Your task to perform on an android device: What's the weather? Image 0: 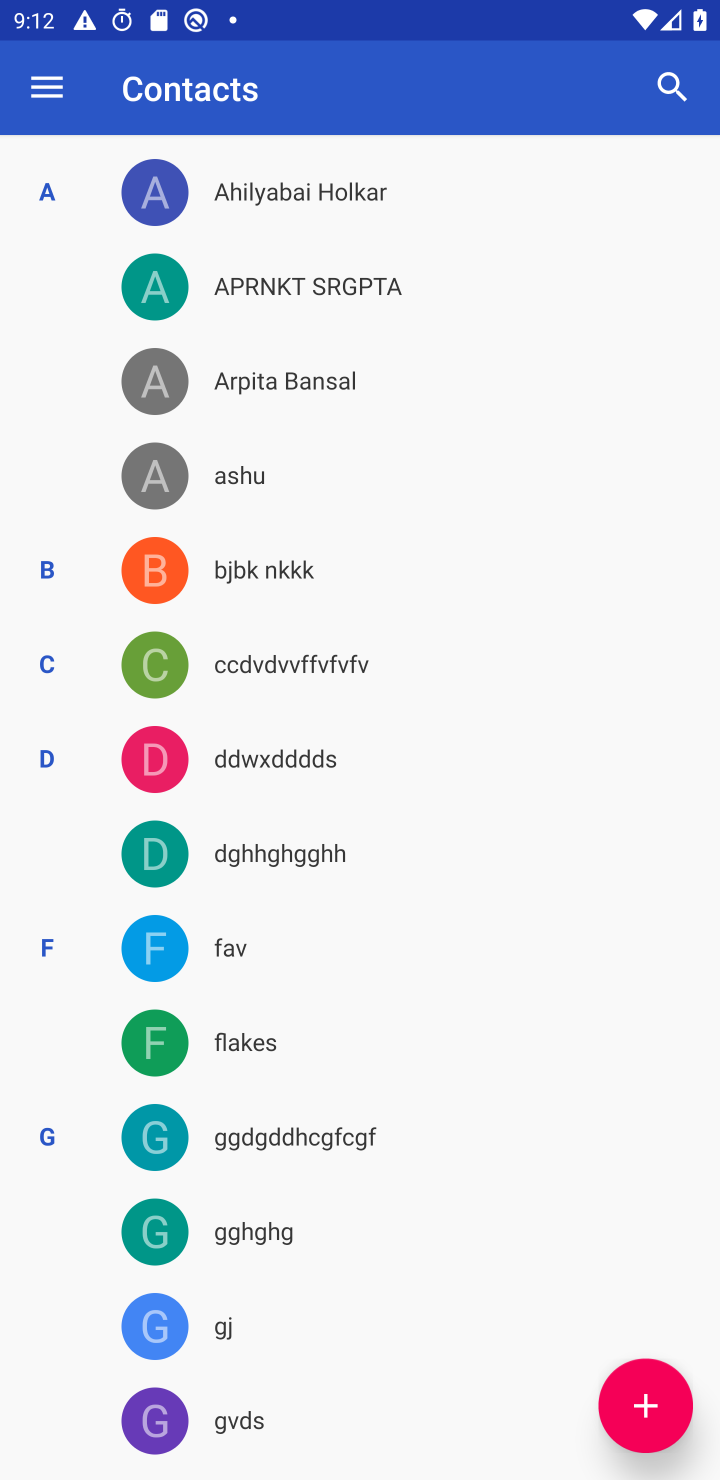
Step 0: press back button
Your task to perform on an android device: What's the weather? Image 1: 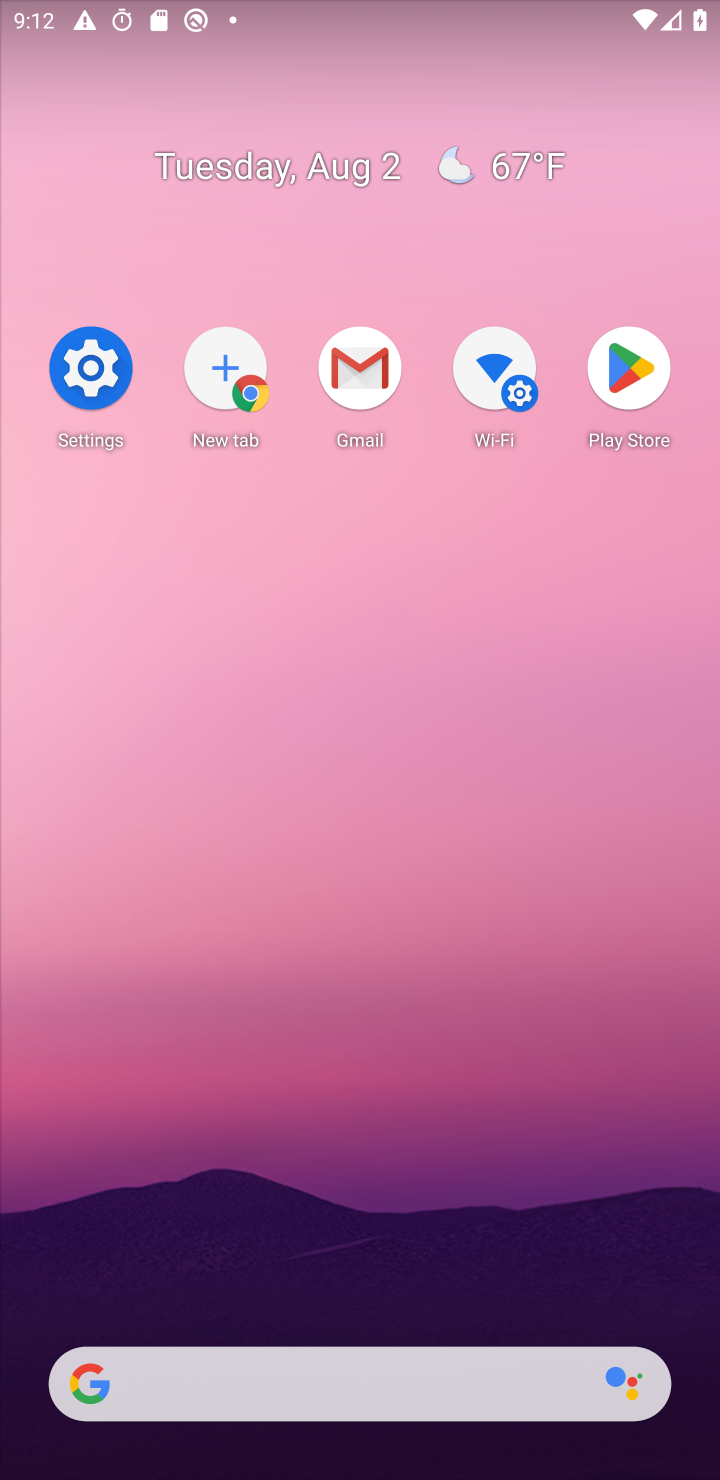
Step 1: drag from (240, 1403) to (250, 1256)
Your task to perform on an android device: What's the weather? Image 2: 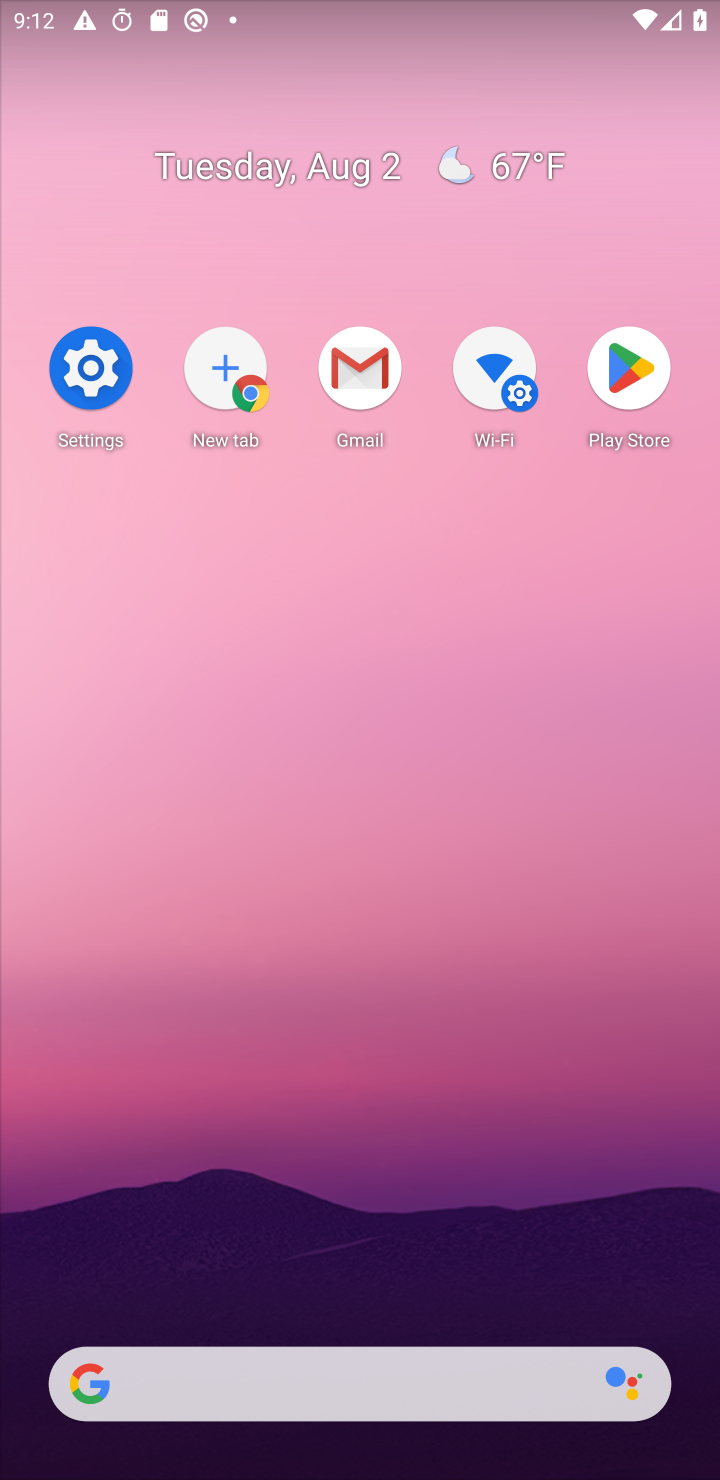
Step 2: click (305, 726)
Your task to perform on an android device: What's the weather? Image 3: 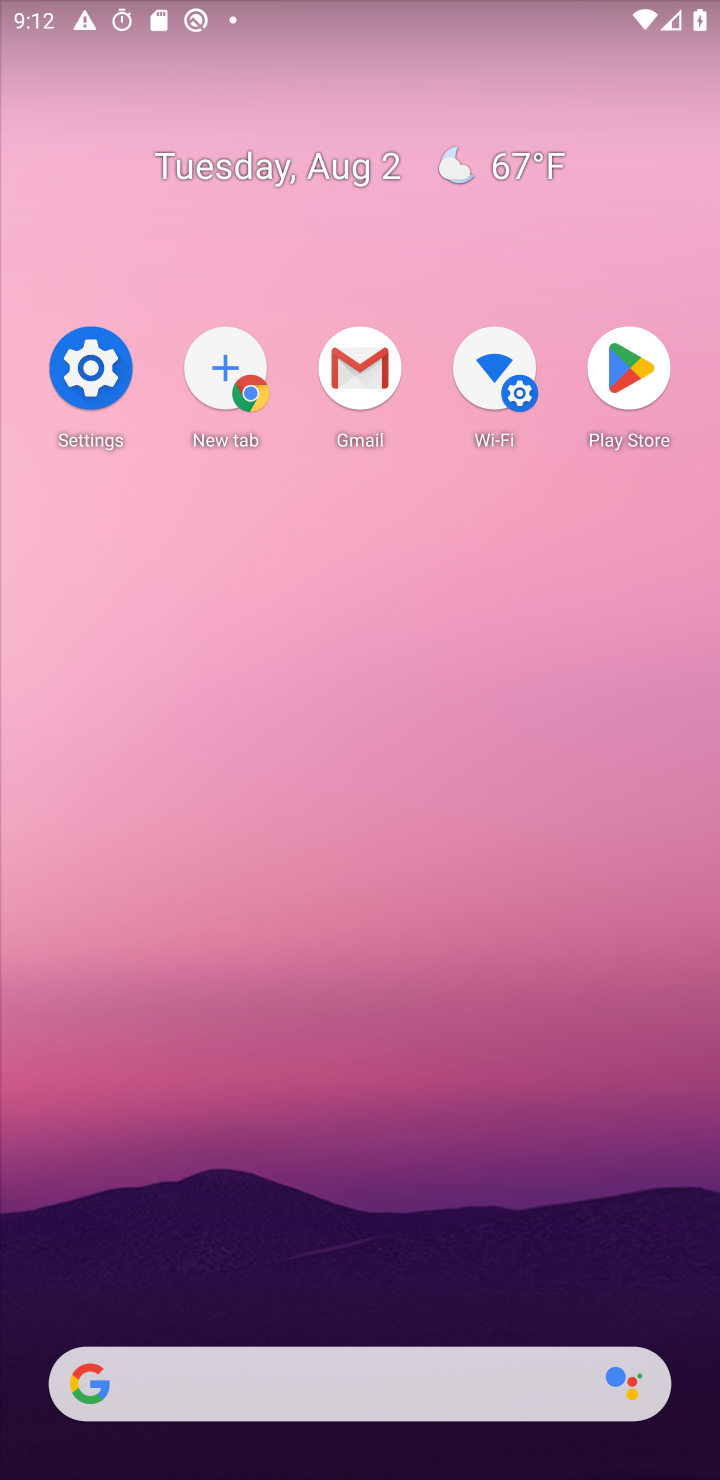
Step 3: drag from (379, 873) to (362, 579)
Your task to perform on an android device: What's the weather? Image 4: 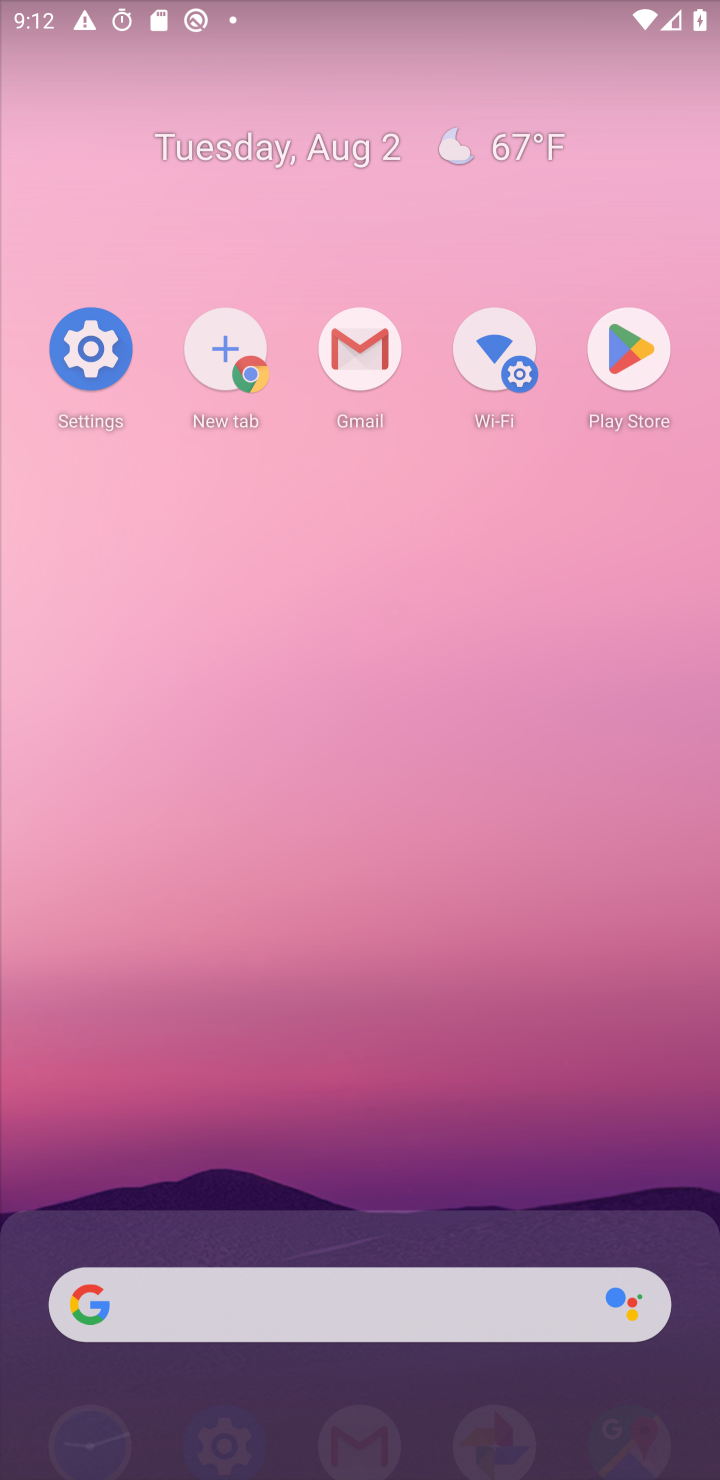
Step 4: click (385, 286)
Your task to perform on an android device: What's the weather? Image 5: 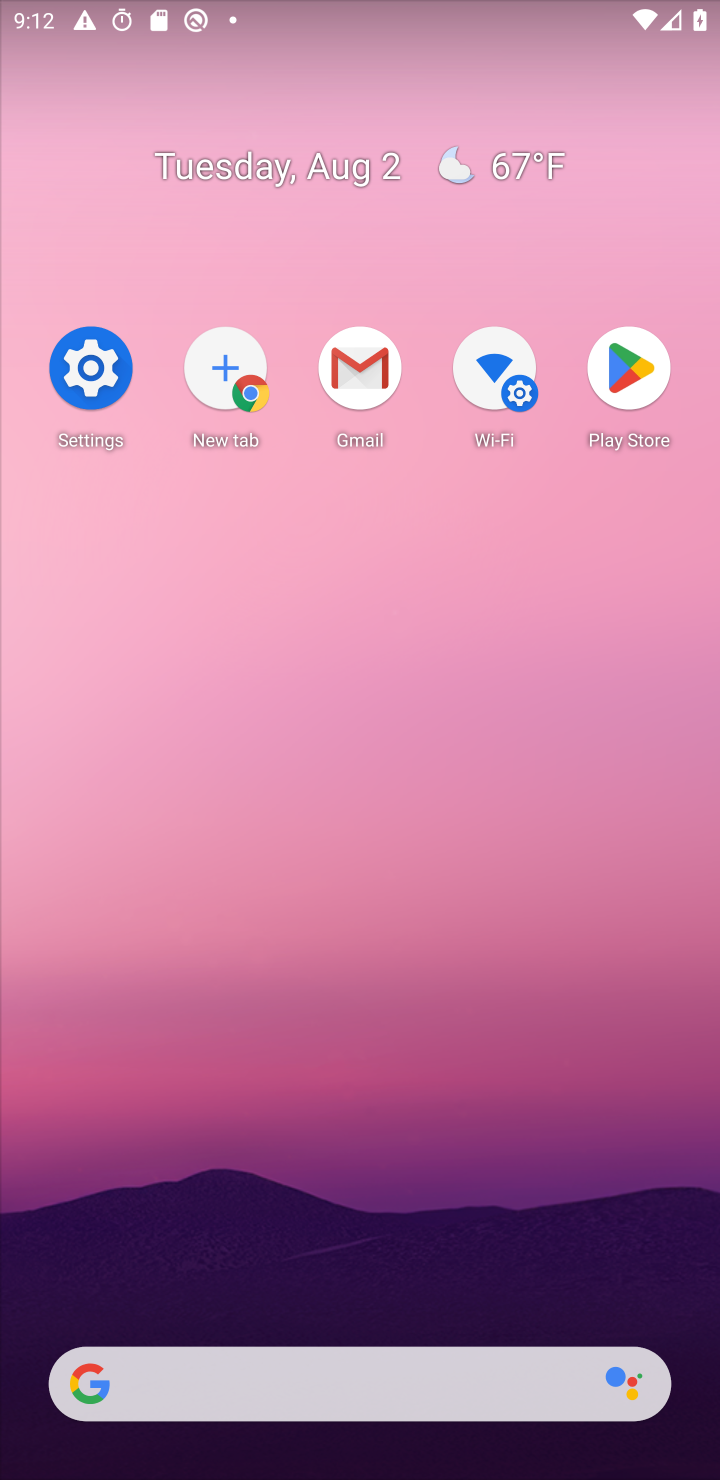
Step 5: drag from (370, 740) to (396, 156)
Your task to perform on an android device: What's the weather? Image 6: 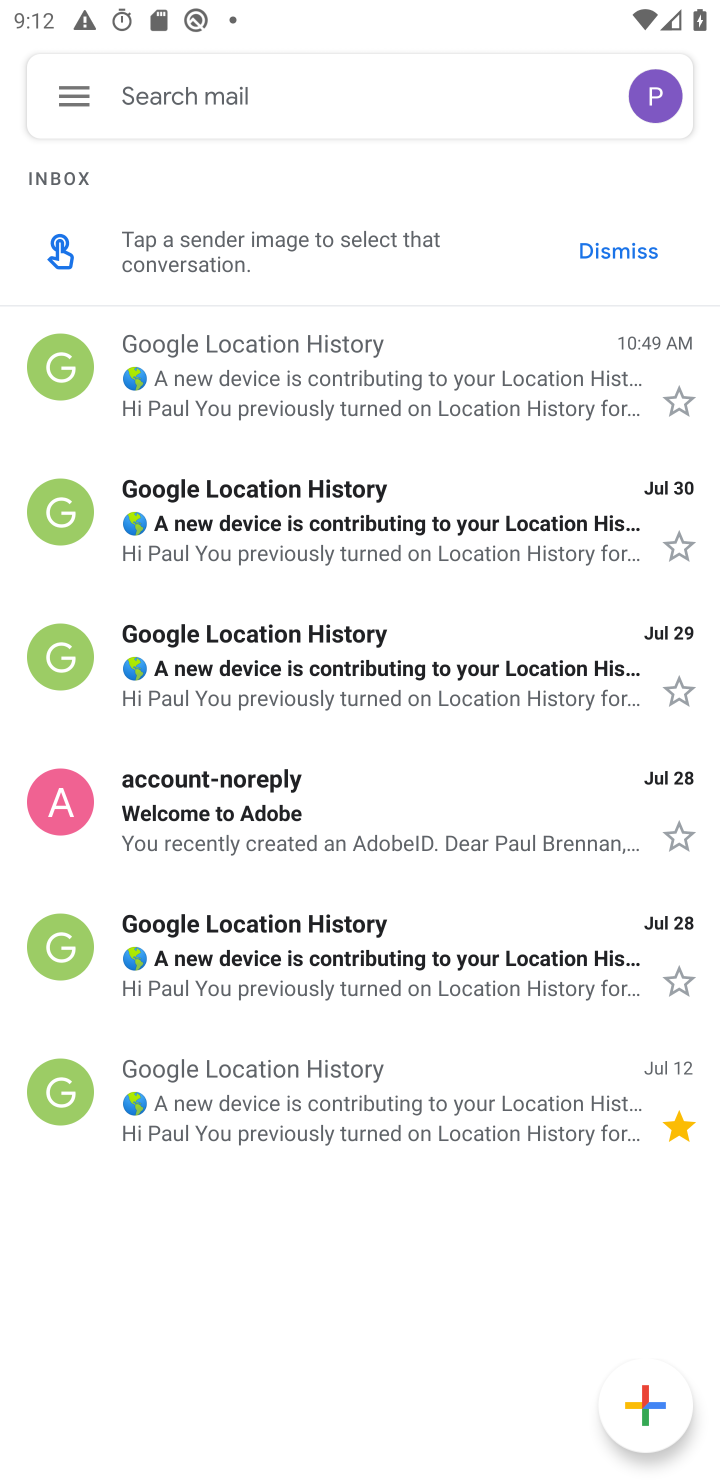
Step 6: press back button
Your task to perform on an android device: What's the weather? Image 7: 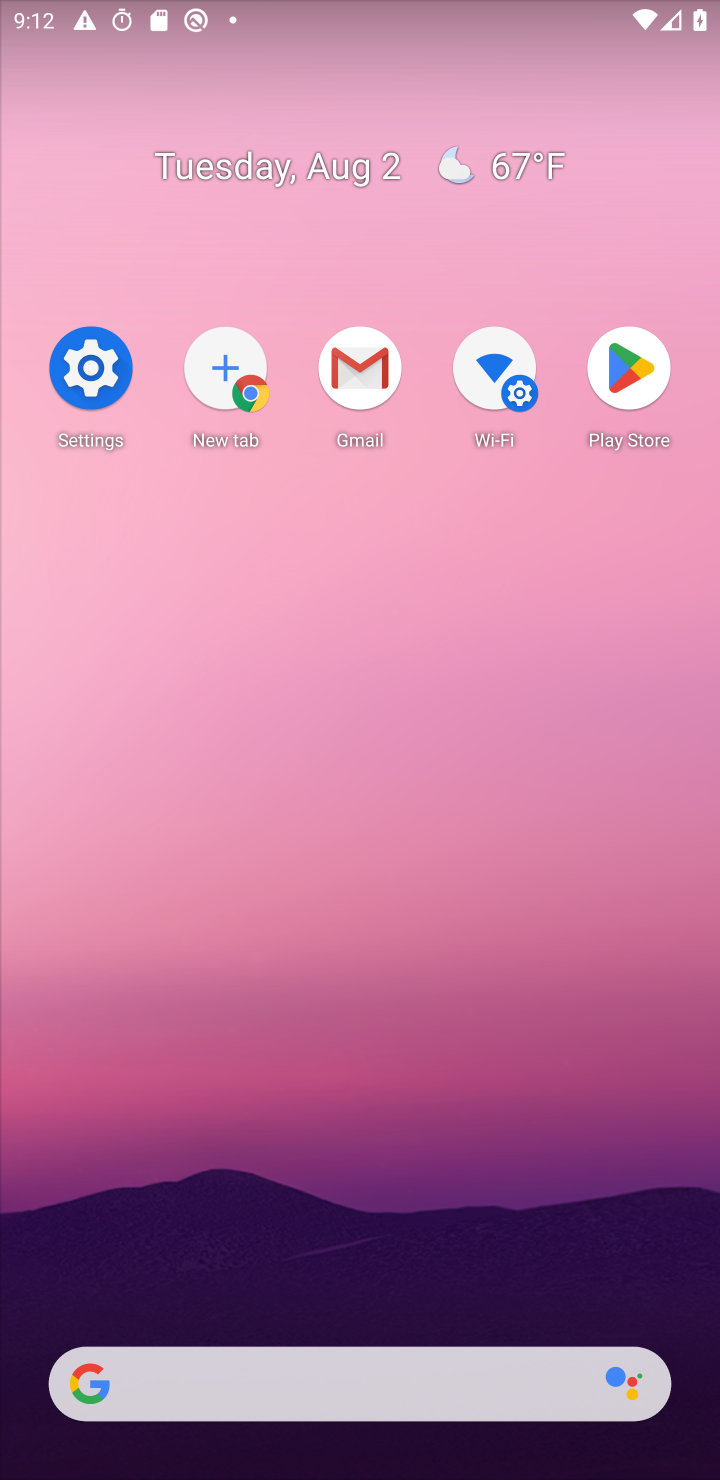
Step 7: click (463, 161)
Your task to perform on an android device: What's the weather? Image 8: 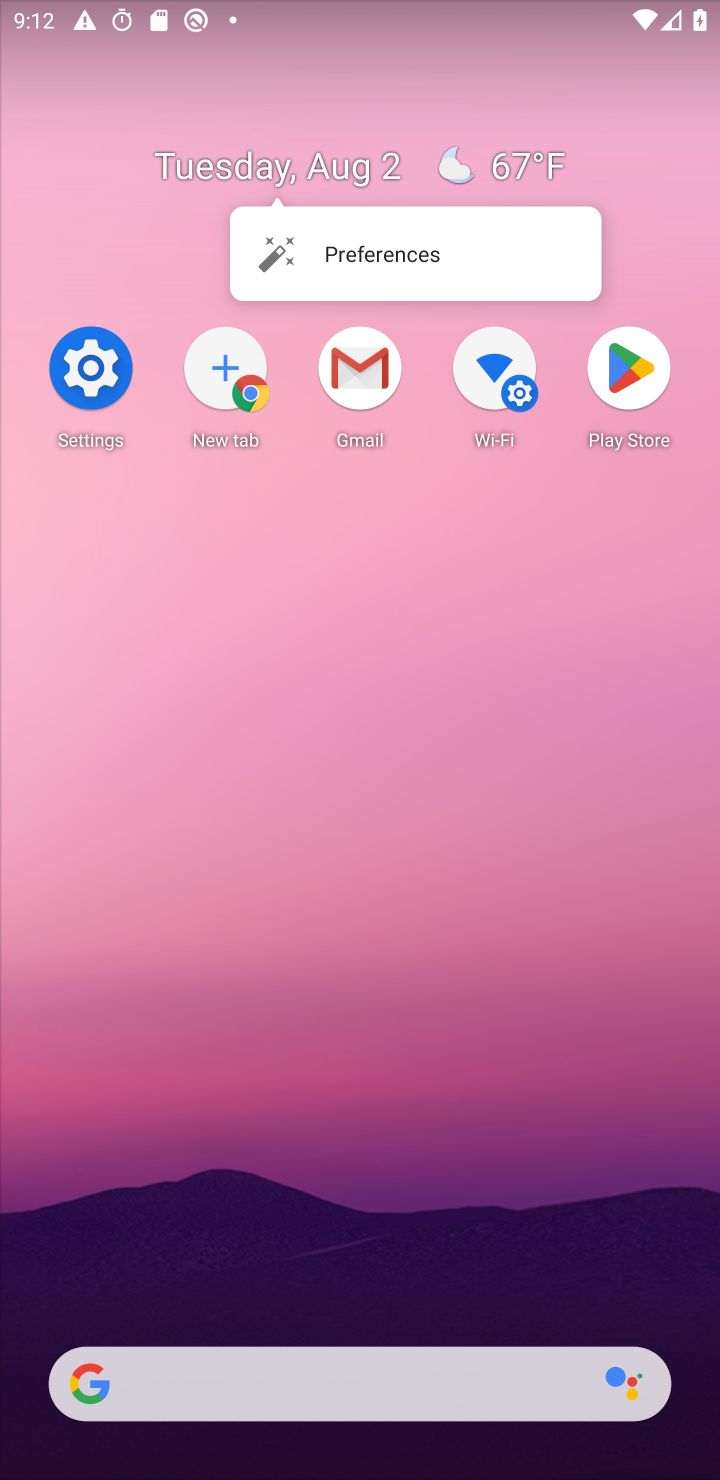
Step 8: click (466, 158)
Your task to perform on an android device: What's the weather? Image 9: 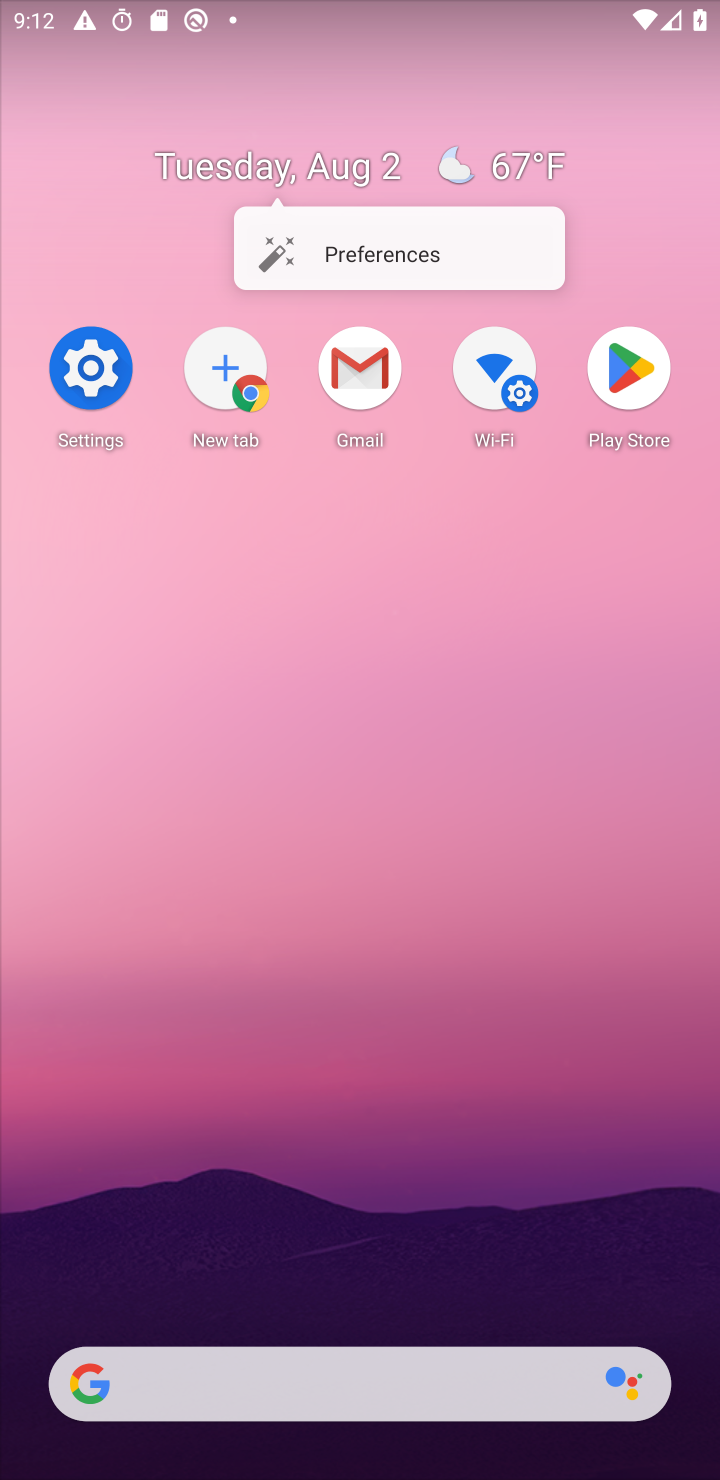
Step 9: click (472, 163)
Your task to perform on an android device: What's the weather? Image 10: 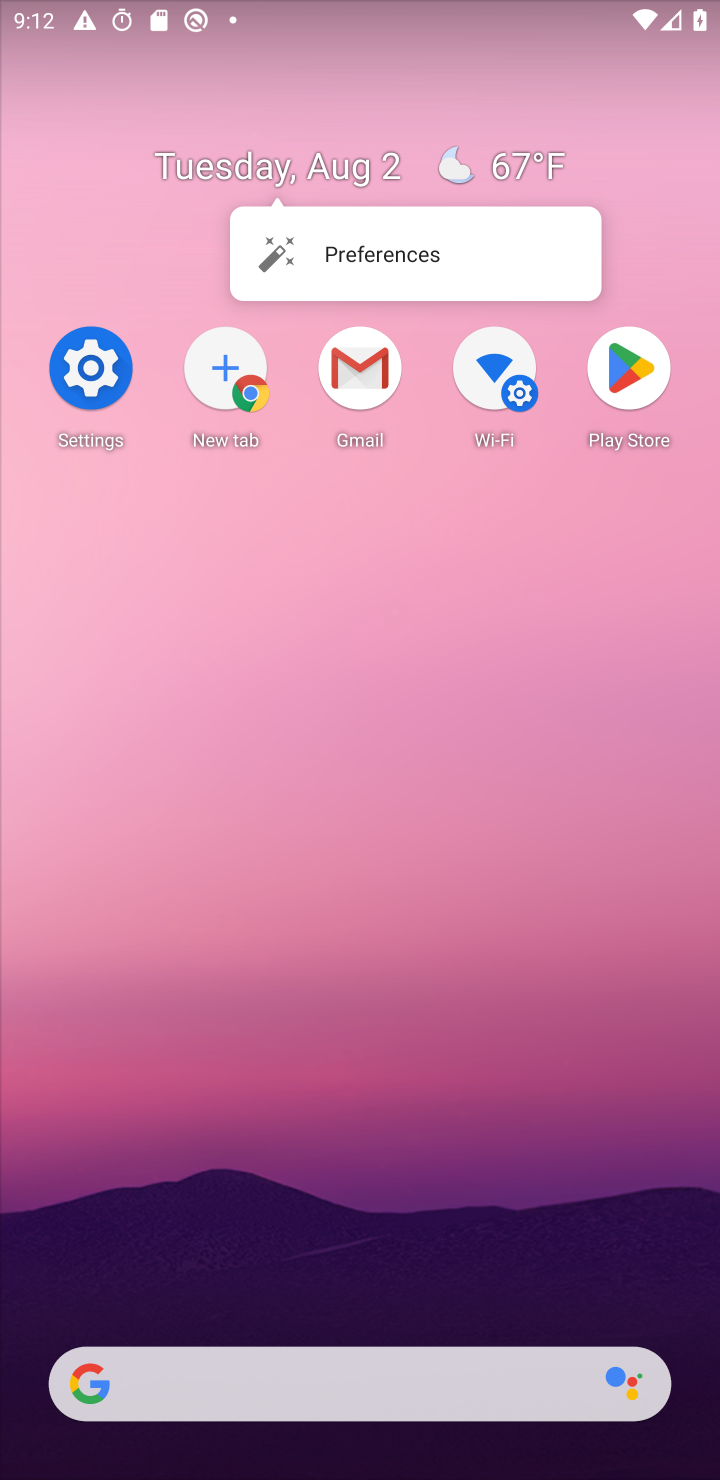
Step 10: click (460, 171)
Your task to perform on an android device: What's the weather? Image 11: 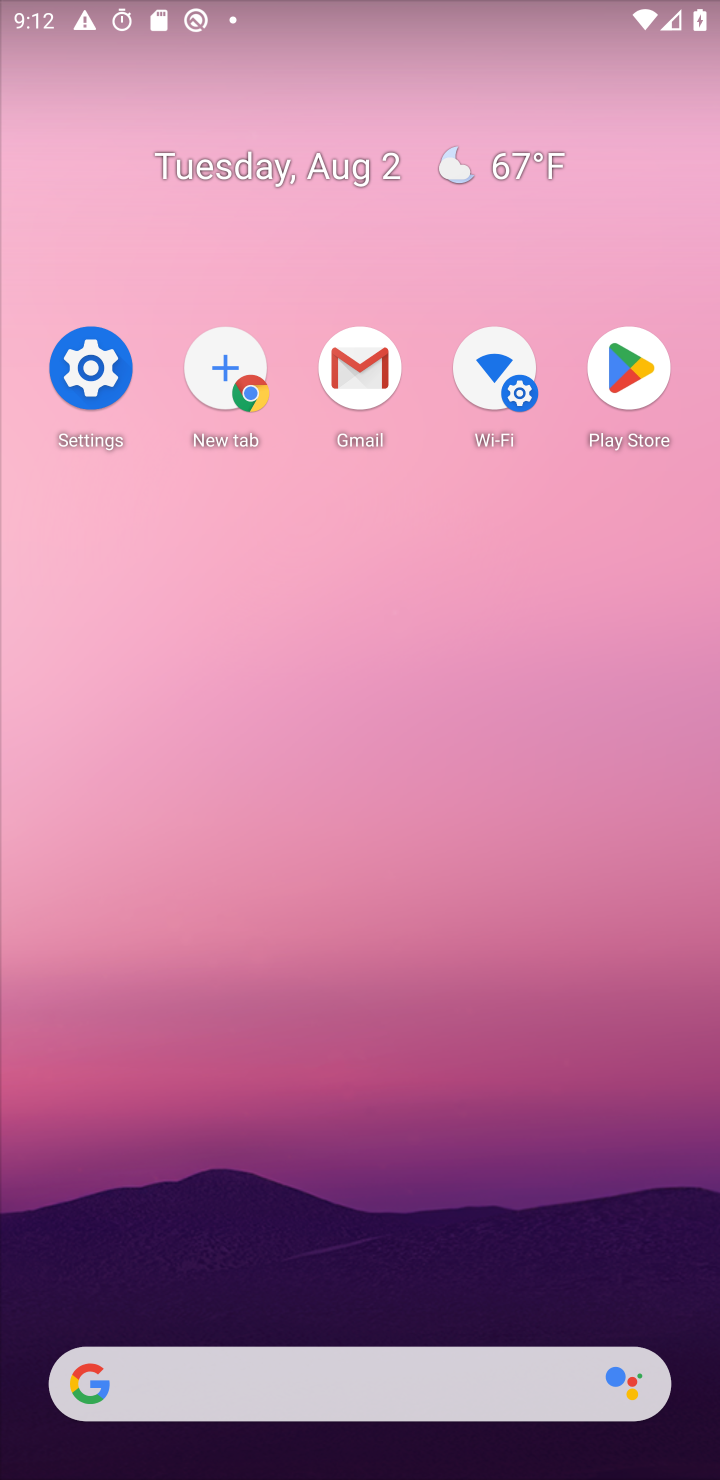
Step 11: click (469, 169)
Your task to perform on an android device: What's the weather? Image 12: 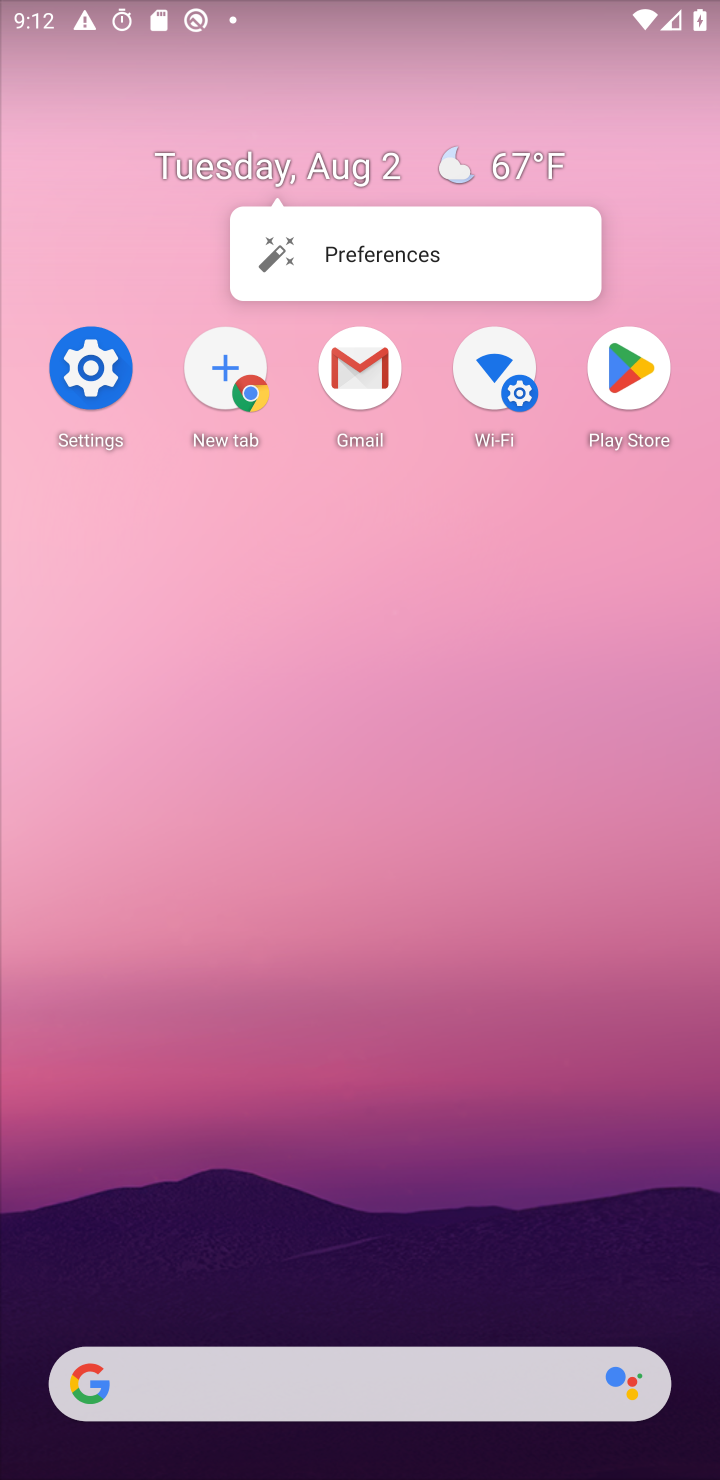
Step 12: click (511, 163)
Your task to perform on an android device: What's the weather? Image 13: 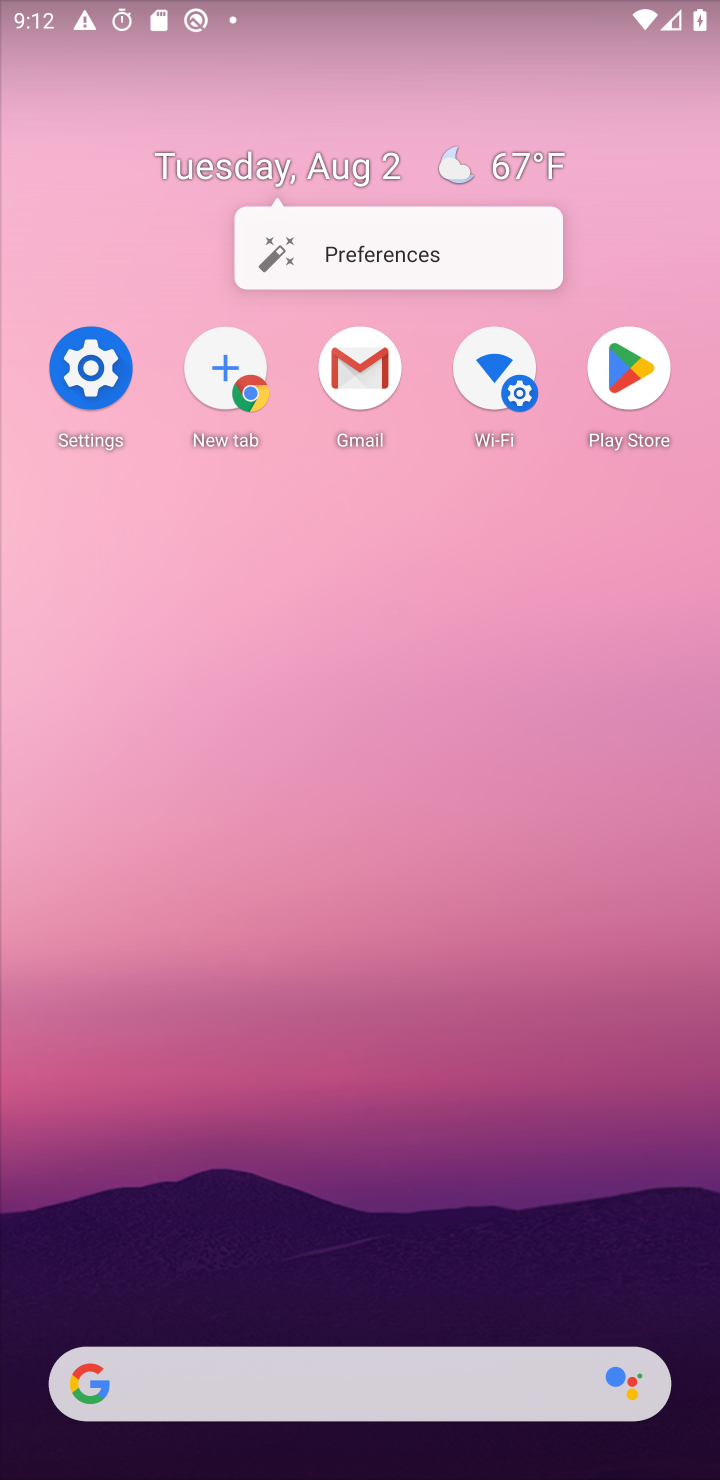
Step 13: click (542, 160)
Your task to perform on an android device: What's the weather? Image 14: 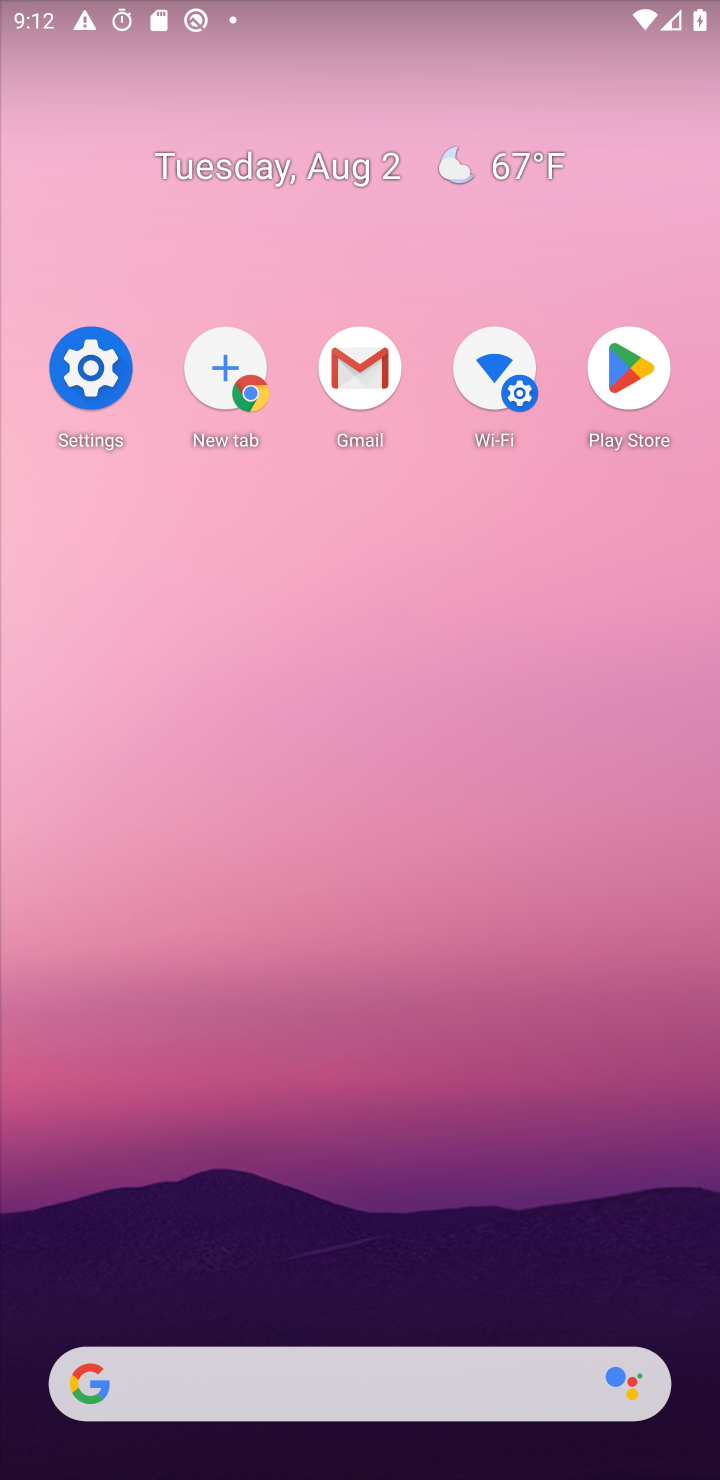
Step 14: click (456, 170)
Your task to perform on an android device: What's the weather? Image 15: 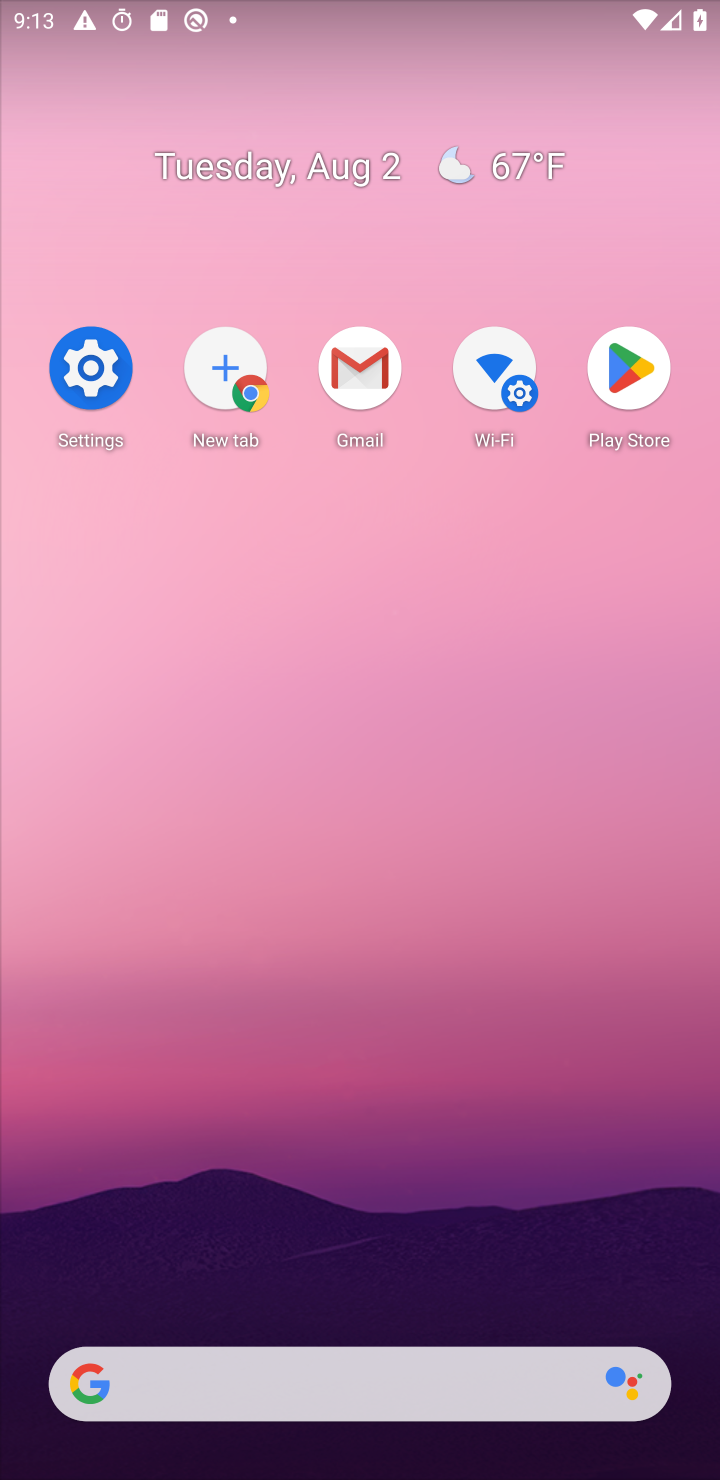
Step 15: click (428, 168)
Your task to perform on an android device: What's the weather? Image 16: 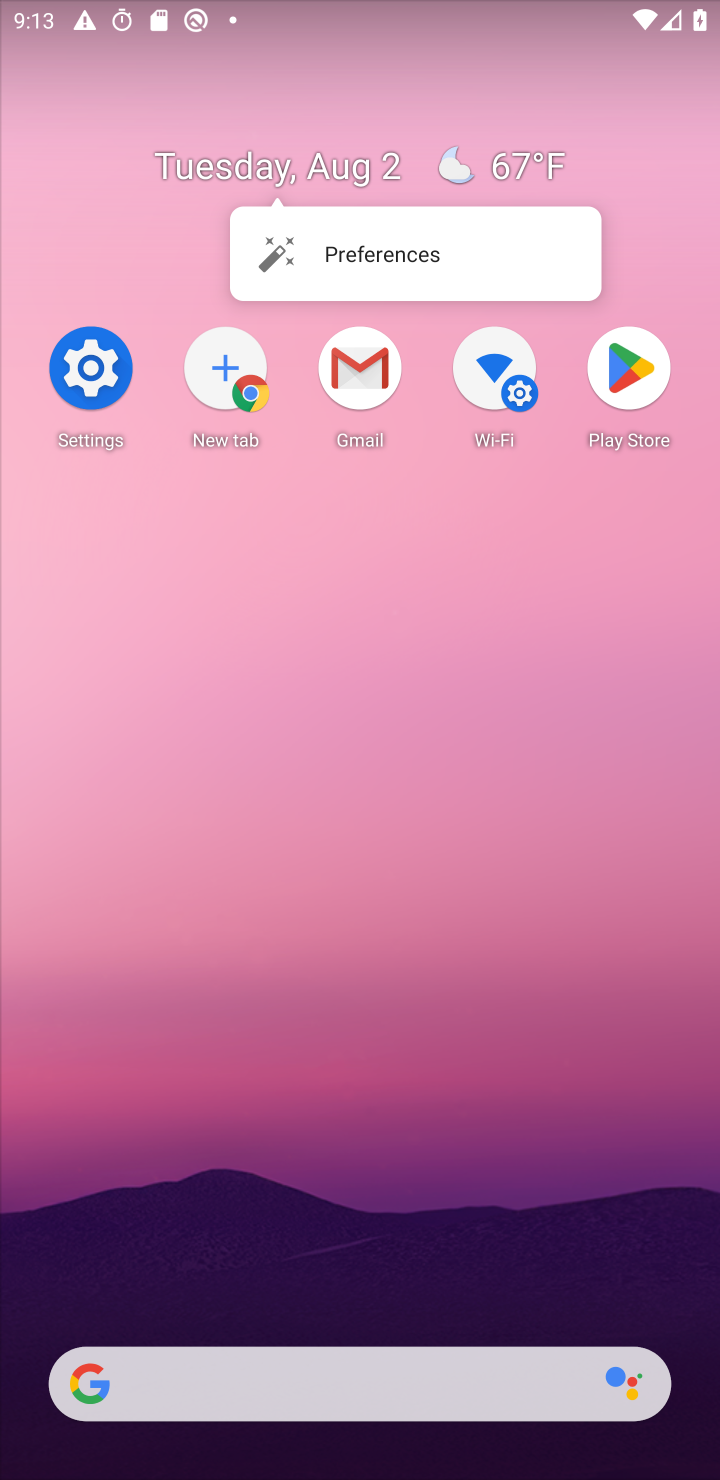
Step 16: click (423, 165)
Your task to perform on an android device: What's the weather? Image 17: 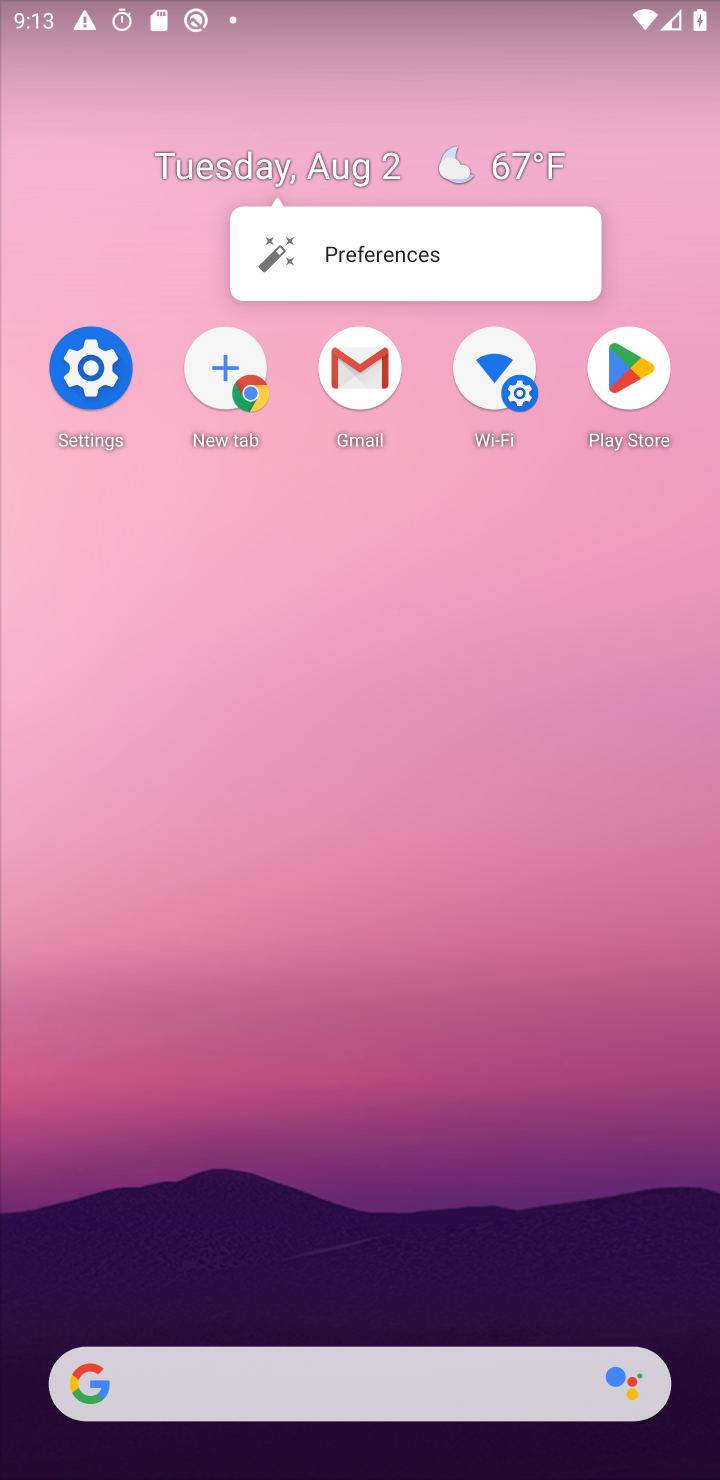
Step 17: click (448, 148)
Your task to perform on an android device: What's the weather? Image 18: 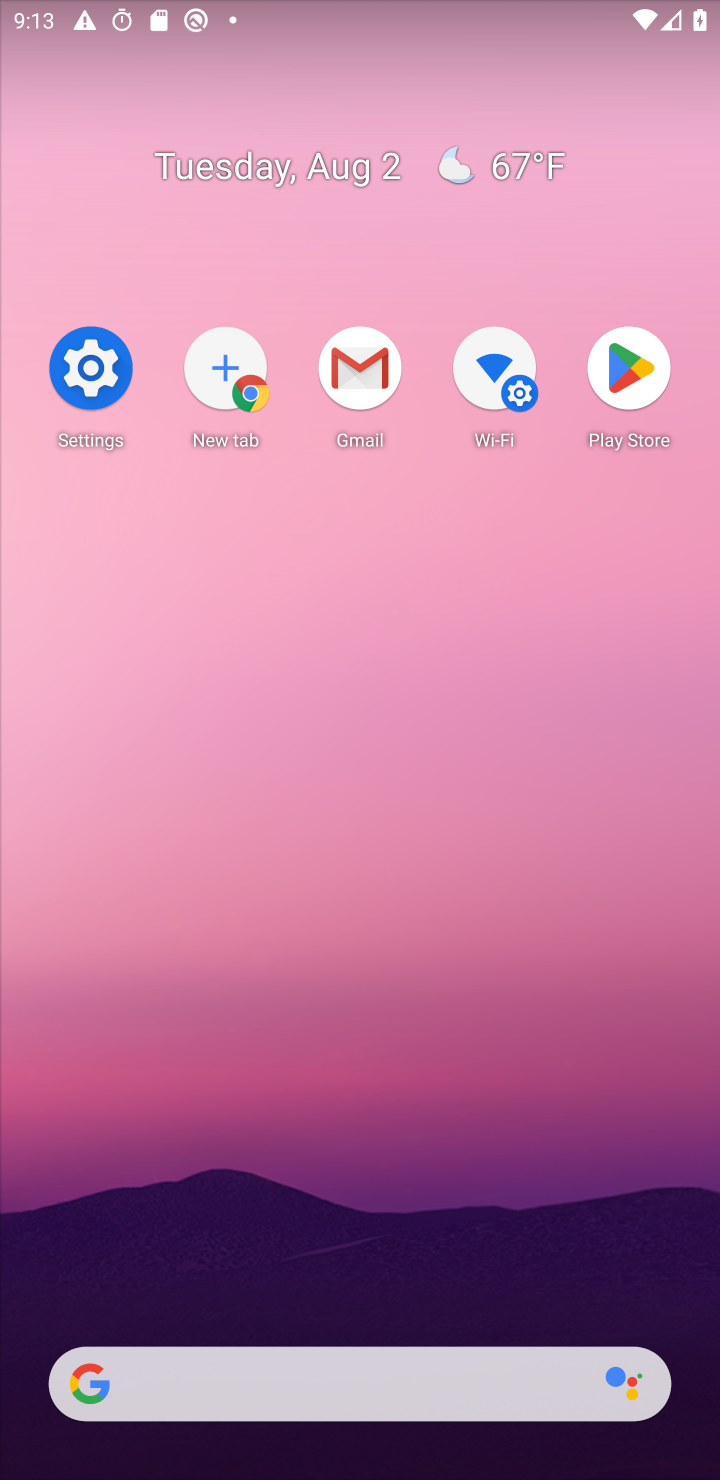
Step 18: click (460, 150)
Your task to perform on an android device: What's the weather? Image 19: 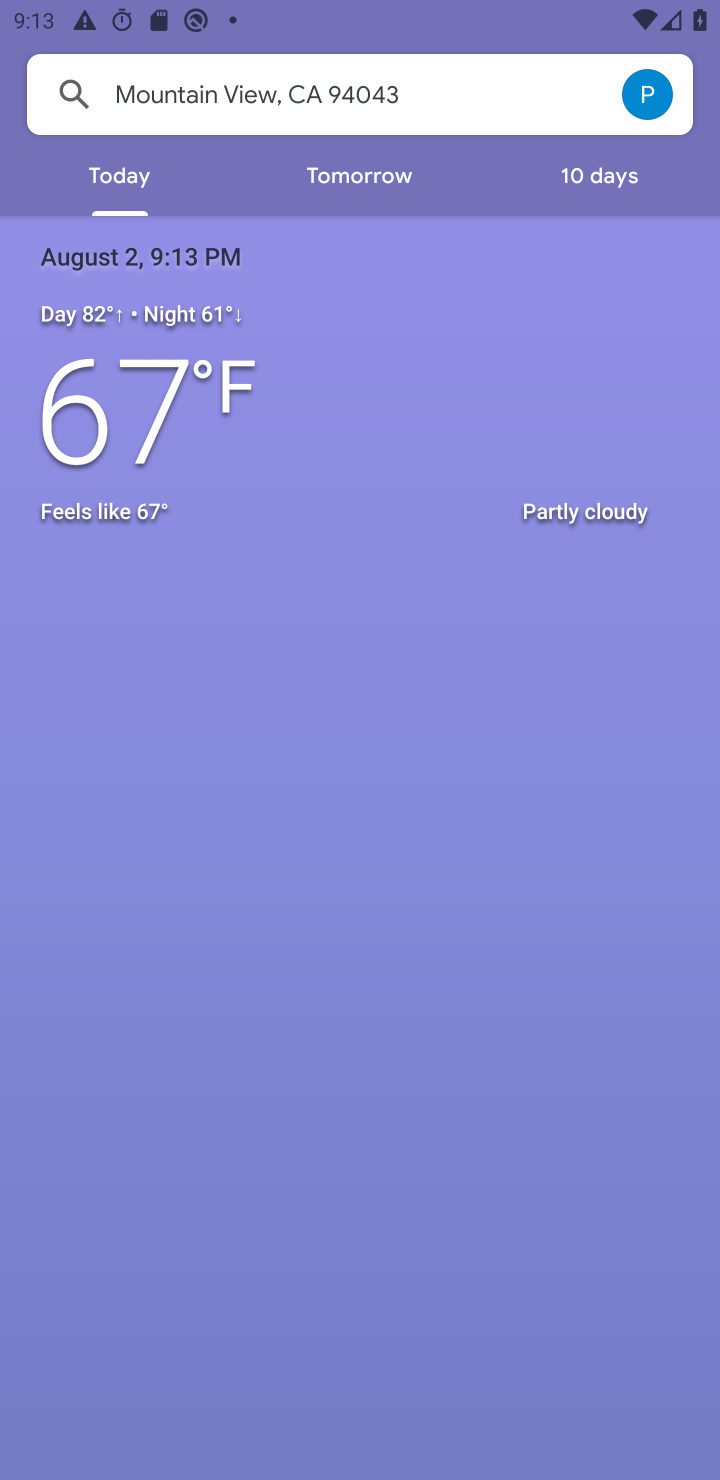
Step 19: click (397, 397)
Your task to perform on an android device: What's the weather? Image 20: 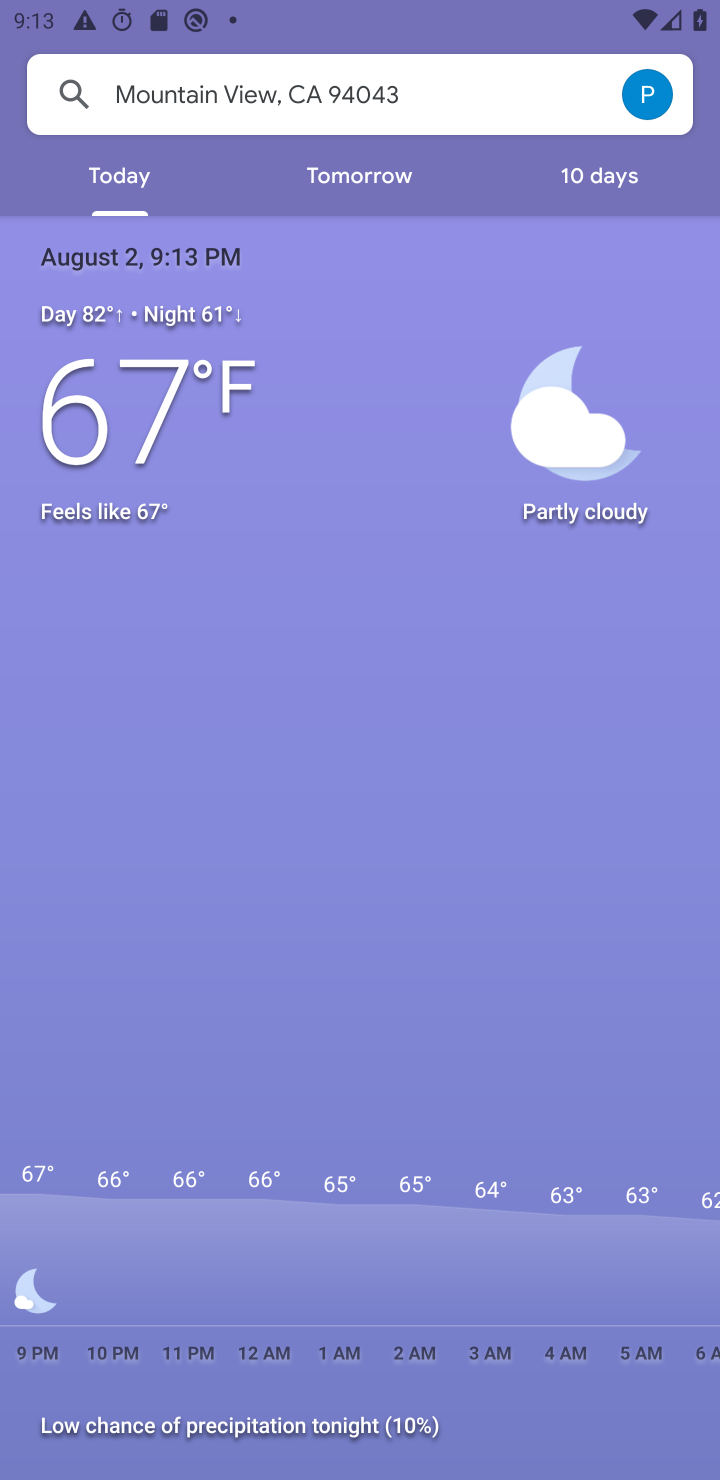
Step 20: task complete